Your task to perform on an android device: turn on javascript in the chrome app Image 0: 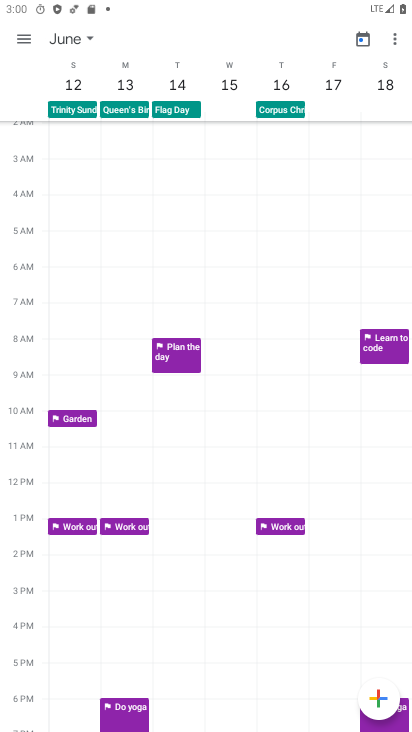
Step 0: press home button
Your task to perform on an android device: turn on javascript in the chrome app Image 1: 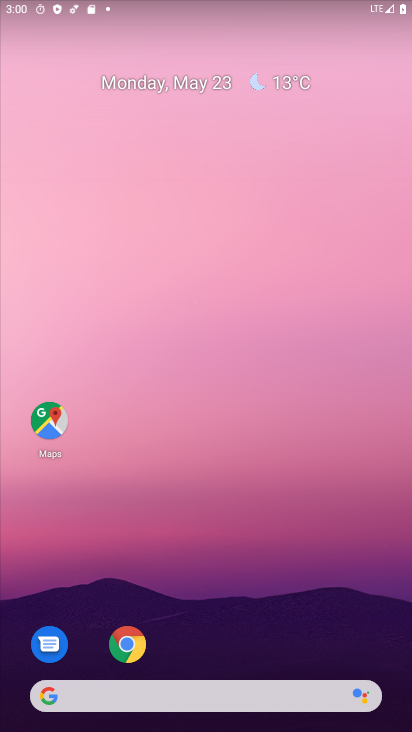
Step 1: click (126, 636)
Your task to perform on an android device: turn on javascript in the chrome app Image 2: 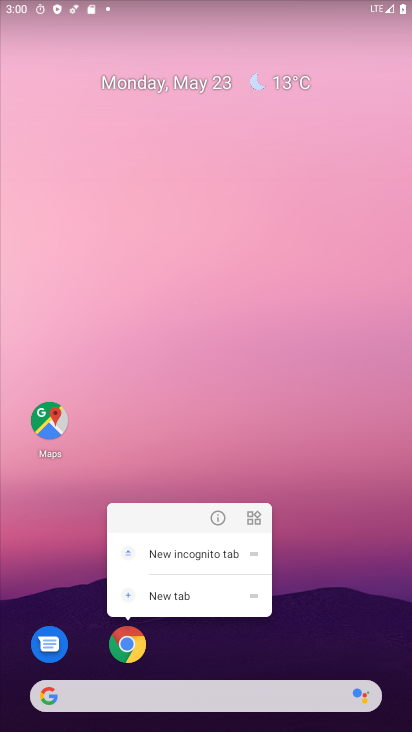
Step 2: click (123, 645)
Your task to perform on an android device: turn on javascript in the chrome app Image 3: 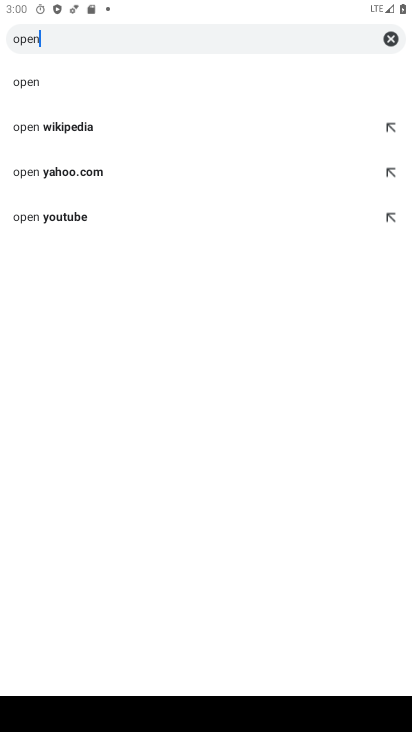
Step 3: task complete